Your task to perform on an android device: visit the assistant section in the google photos Image 0: 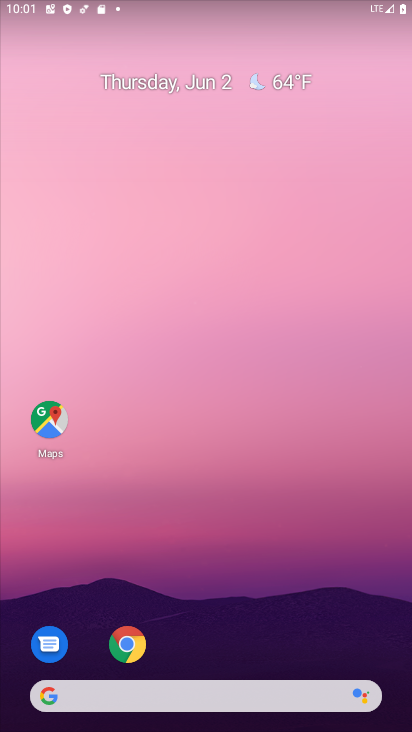
Step 0: press home button
Your task to perform on an android device: visit the assistant section in the google photos Image 1: 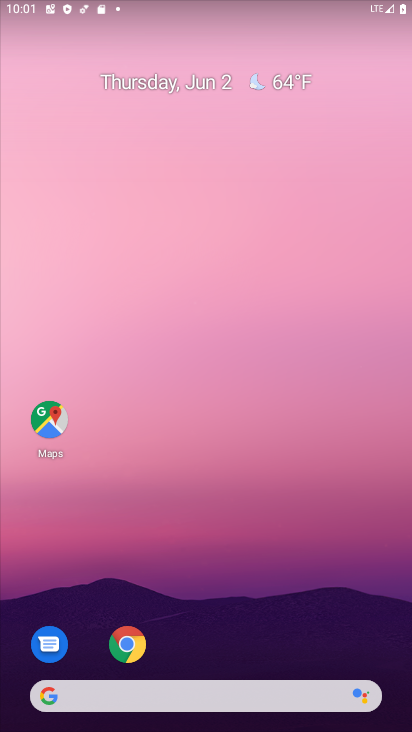
Step 1: drag from (346, 650) to (312, 133)
Your task to perform on an android device: visit the assistant section in the google photos Image 2: 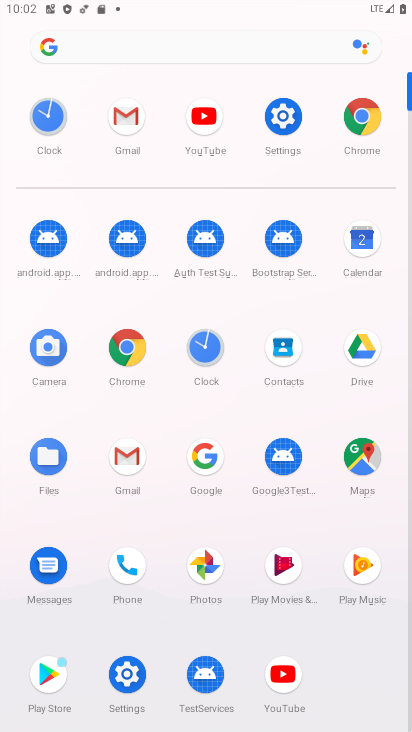
Step 2: click (201, 567)
Your task to perform on an android device: visit the assistant section in the google photos Image 3: 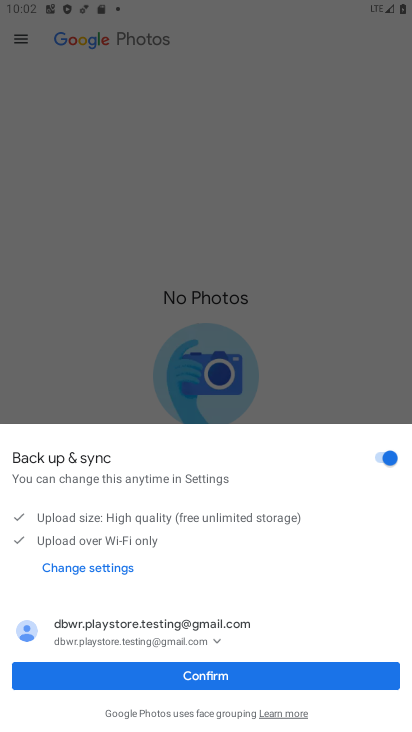
Step 3: click (196, 670)
Your task to perform on an android device: visit the assistant section in the google photos Image 4: 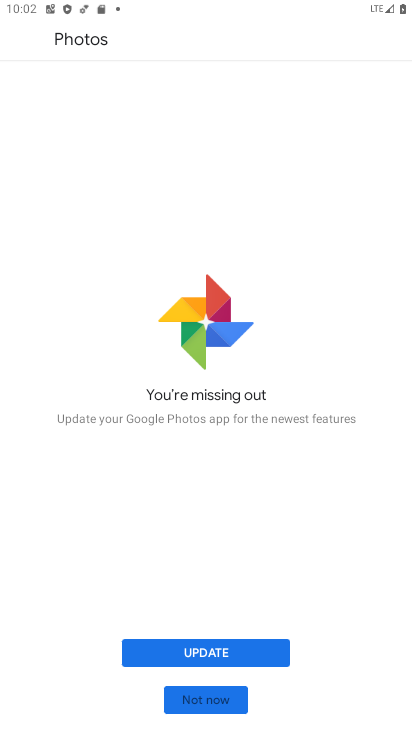
Step 4: click (222, 654)
Your task to perform on an android device: visit the assistant section in the google photos Image 5: 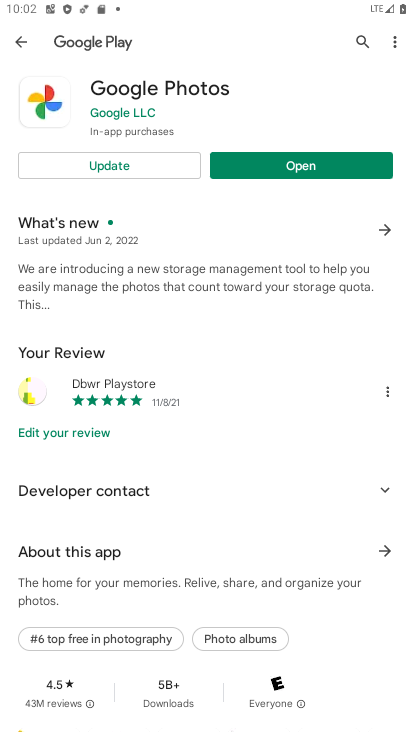
Step 5: click (56, 167)
Your task to perform on an android device: visit the assistant section in the google photos Image 6: 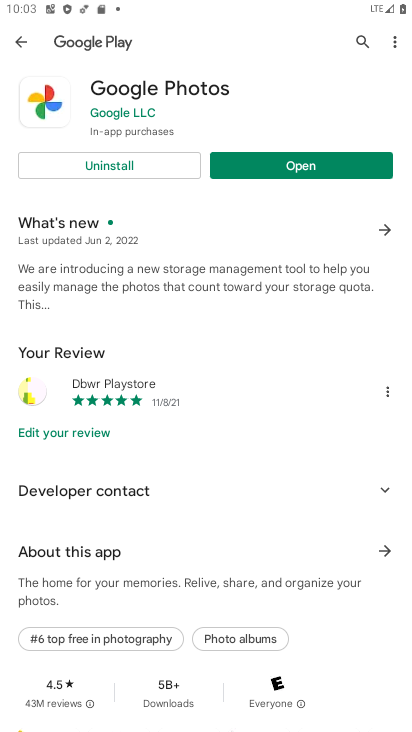
Step 6: click (309, 166)
Your task to perform on an android device: visit the assistant section in the google photos Image 7: 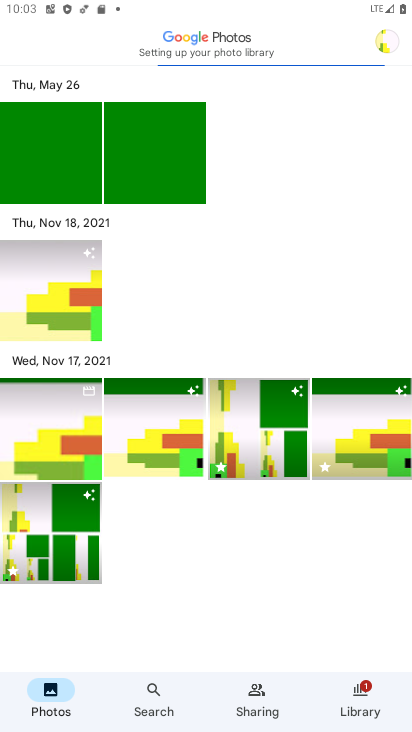
Step 7: task complete